Your task to perform on an android device: Clear the shopping cart on costco.com. Search for macbook pro on costco.com, select the first entry, and add it to the cart. Image 0: 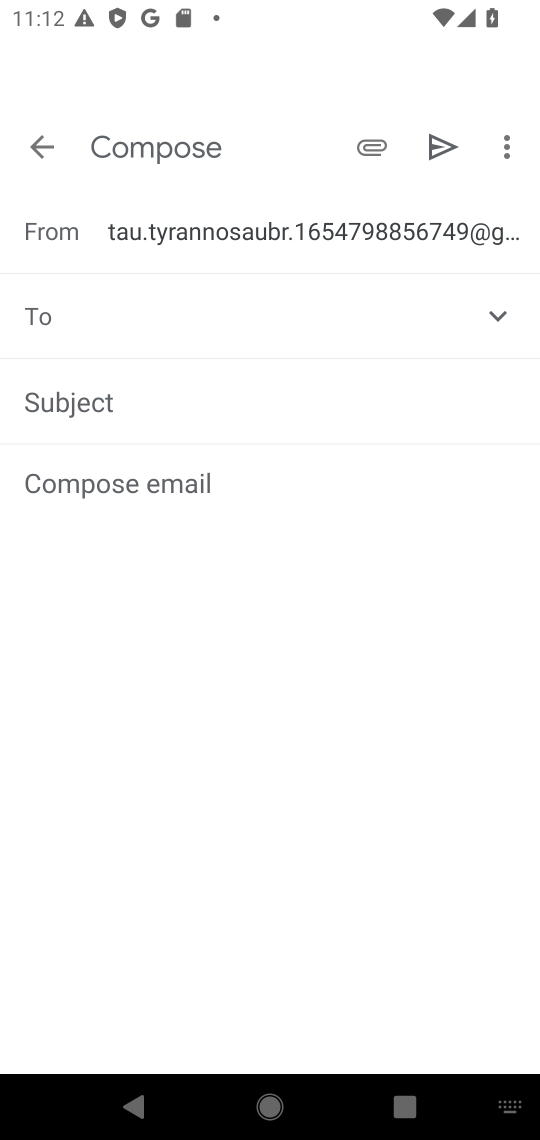
Step 0: press home button
Your task to perform on an android device: Clear the shopping cart on costco.com. Search for macbook pro on costco.com, select the first entry, and add it to the cart. Image 1: 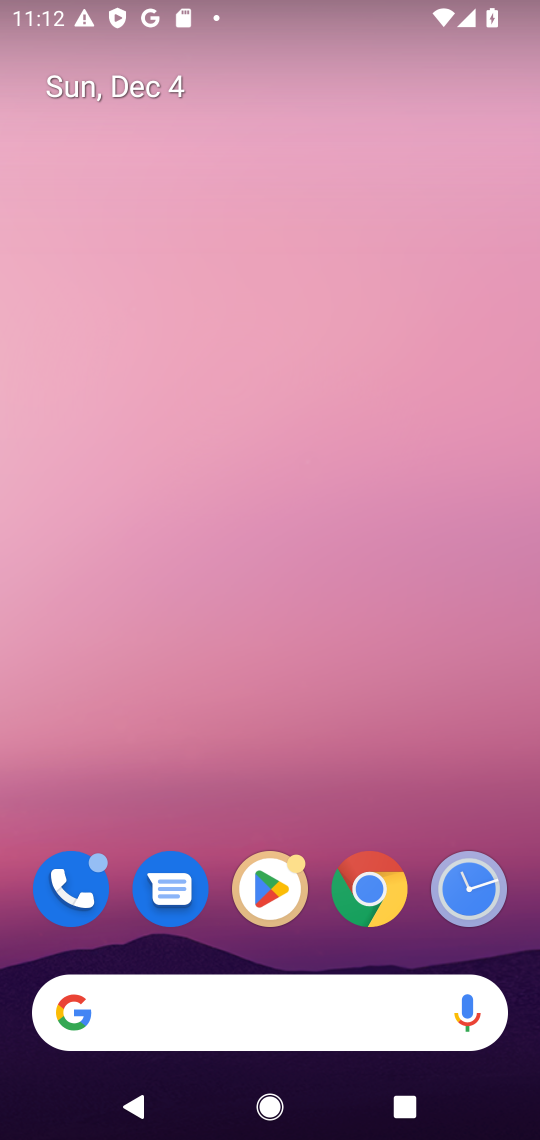
Step 1: click (373, 888)
Your task to perform on an android device: Clear the shopping cart on costco.com. Search for macbook pro on costco.com, select the first entry, and add it to the cart. Image 2: 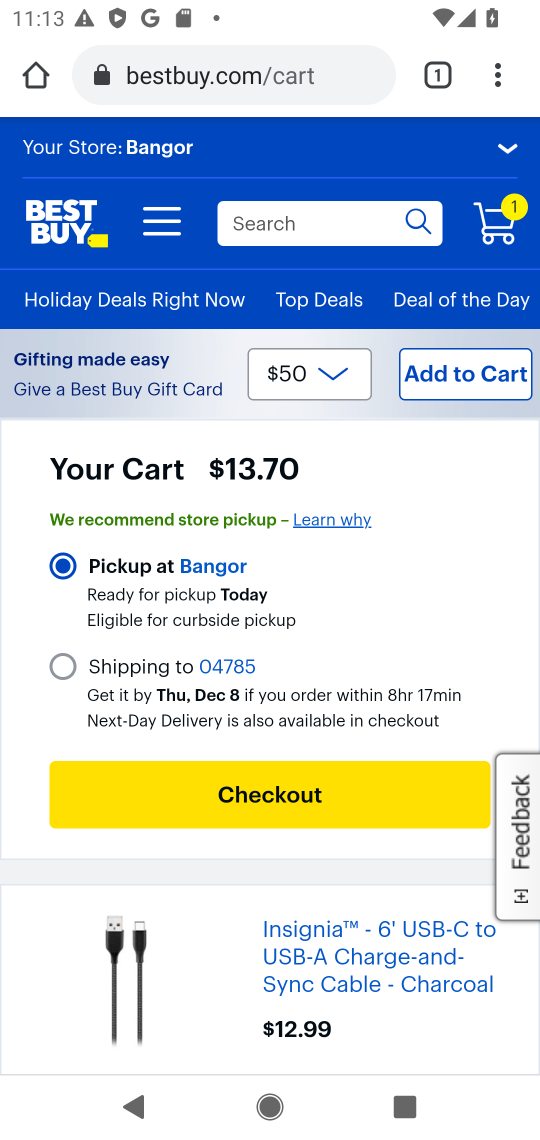
Step 2: click (291, 66)
Your task to perform on an android device: Clear the shopping cart on costco.com. Search for macbook pro on costco.com, select the first entry, and add it to the cart. Image 3: 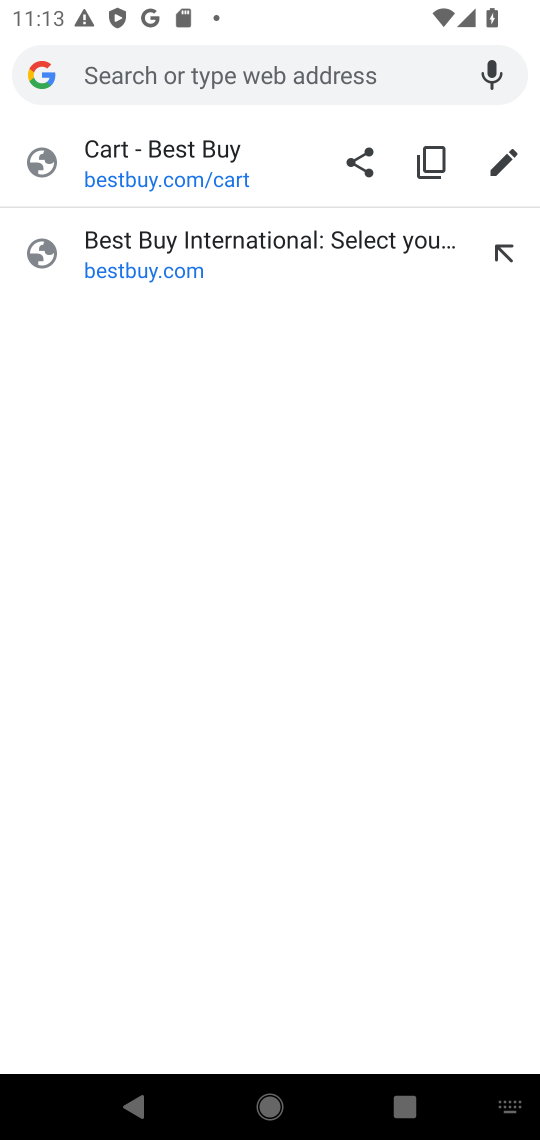
Step 3: press enter
Your task to perform on an android device: Clear the shopping cart on costco.com. Search for macbook pro on costco.com, select the first entry, and add it to the cart. Image 4: 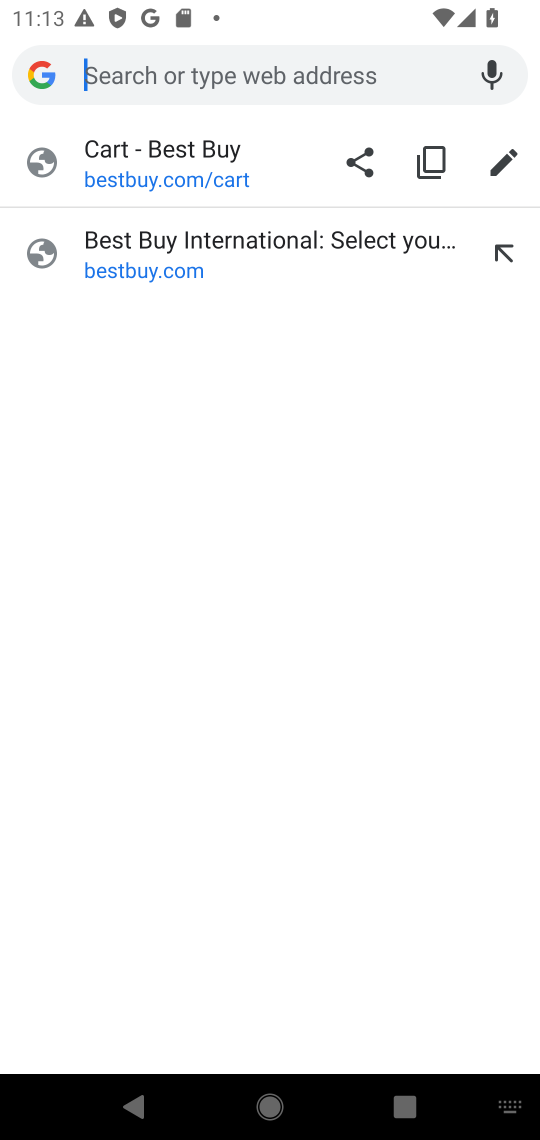
Step 4: type " costco.com"
Your task to perform on an android device: Clear the shopping cart on costco.com. Search for macbook pro on costco.com, select the first entry, and add it to the cart. Image 5: 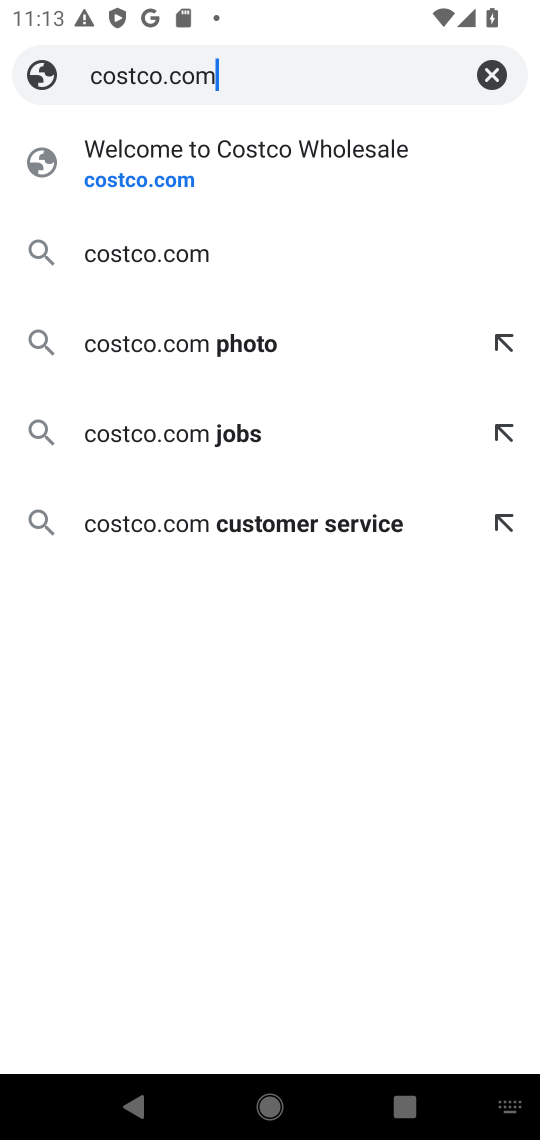
Step 5: click (156, 244)
Your task to perform on an android device: Clear the shopping cart on costco.com. Search for macbook pro on costco.com, select the first entry, and add it to the cart. Image 6: 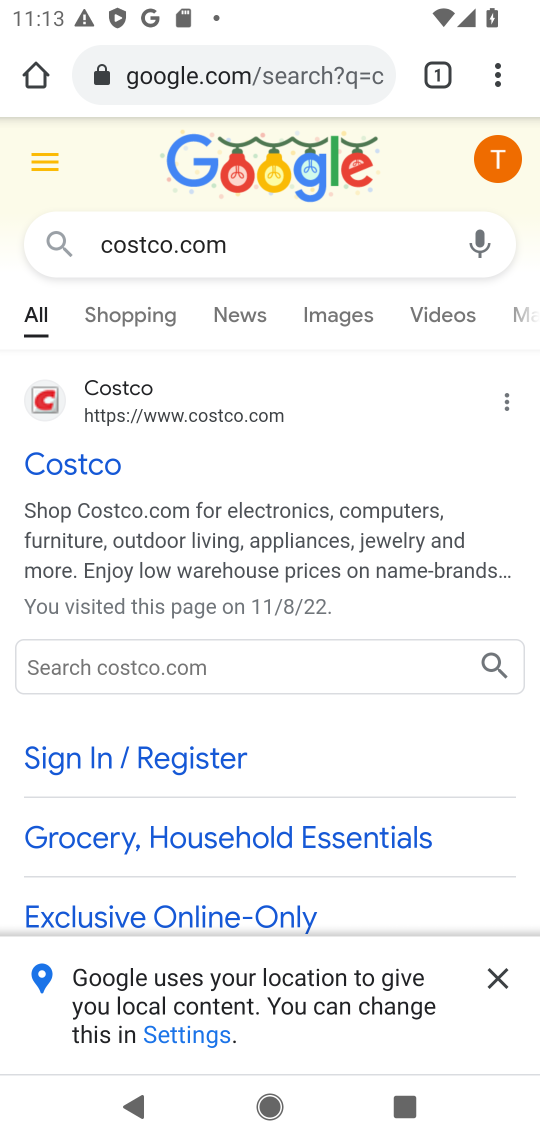
Step 6: click (199, 414)
Your task to perform on an android device: Clear the shopping cart on costco.com. Search for macbook pro on costco.com, select the first entry, and add it to the cart. Image 7: 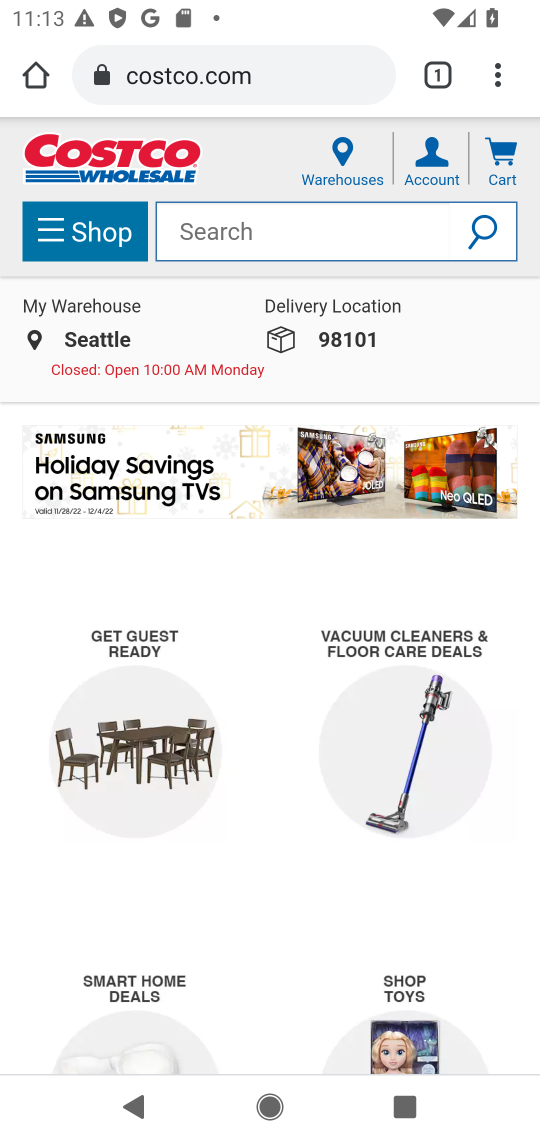
Step 7: click (377, 227)
Your task to perform on an android device: Clear the shopping cart on costco.com. Search for macbook pro on costco.com, select the first entry, and add it to the cart. Image 8: 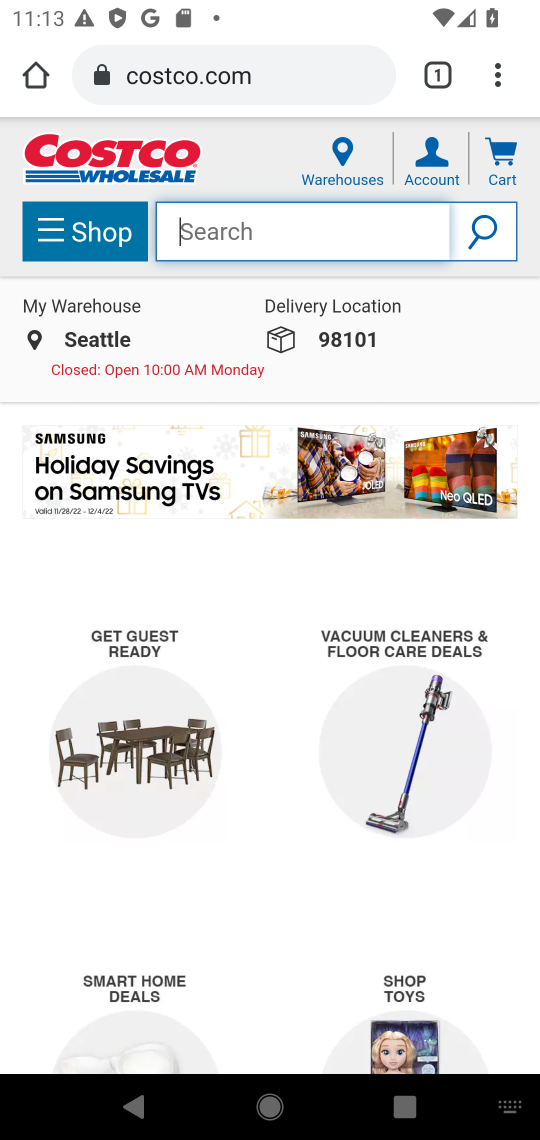
Step 8: type "macbook pro"
Your task to perform on an android device: Clear the shopping cart on costco.com. Search for macbook pro on costco.com, select the first entry, and add it to the cart. Image 9: 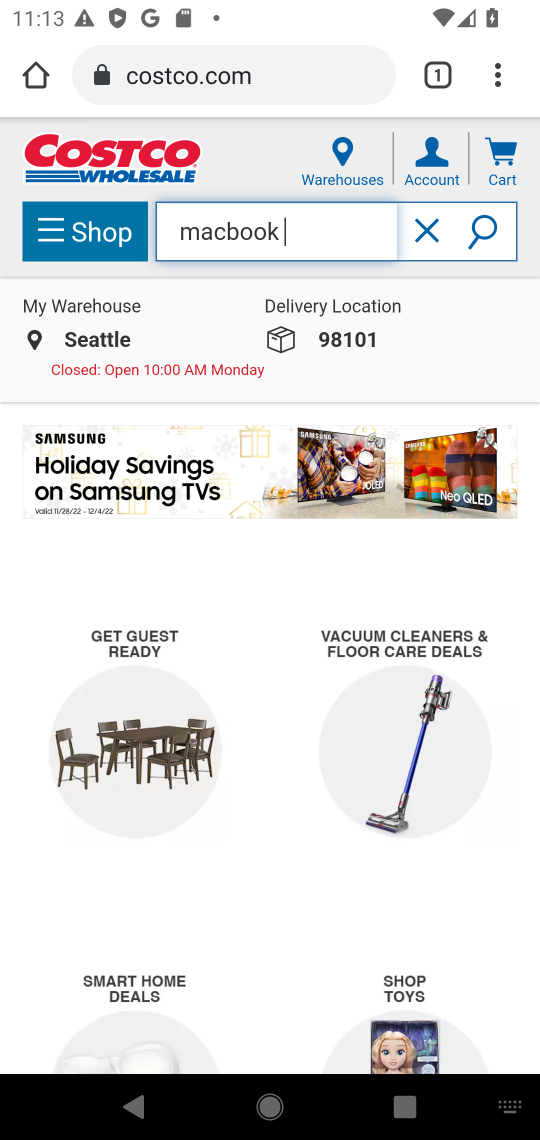
Step 9: press enter
Your task to perform on an android device: Clear the shopping cart on costco.com. Search for macbook pro on costco.com, select the first entry, and add it to the cart. Image 10: 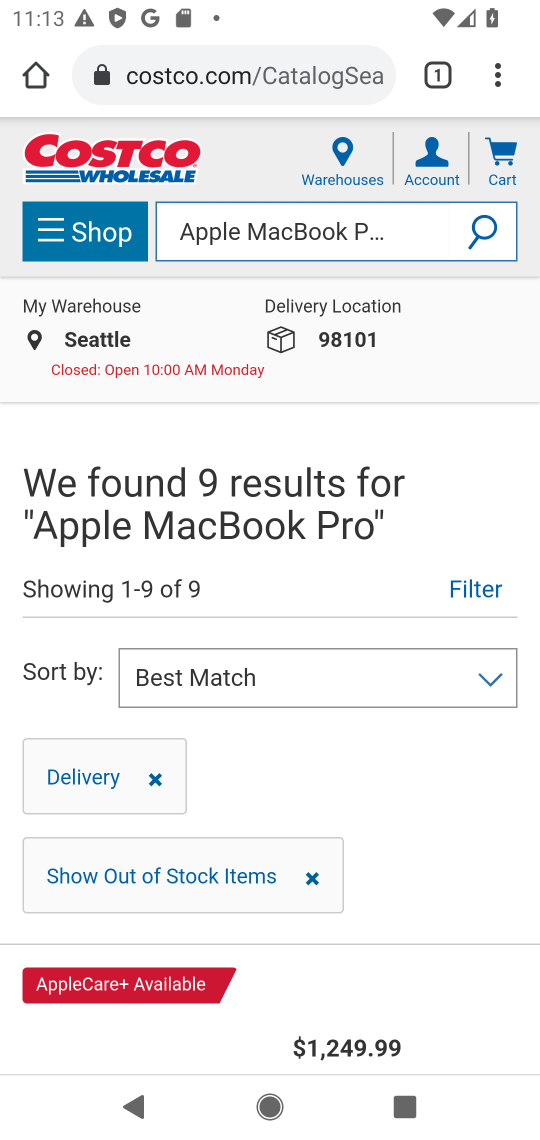
Step 10: drag from (470, 931) to (420, 509)
Your task to perform on an android device: Clear the shopping cart on costco.com. Search for macbook pro on costco.com, select the first entry, and add it to the cart. Image 11: 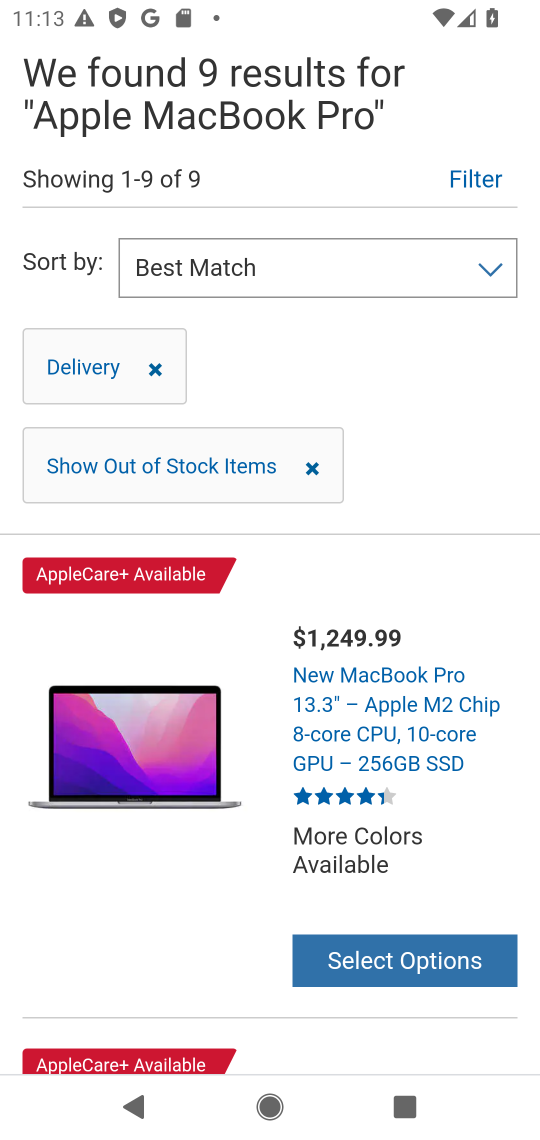
Step 11: click (176, 748)
Your task to perform on an android device: Clear the shopping cart on costco.com. Search for macbook pro on costco.com, select the first entry, and add it to the cart. Image 12: 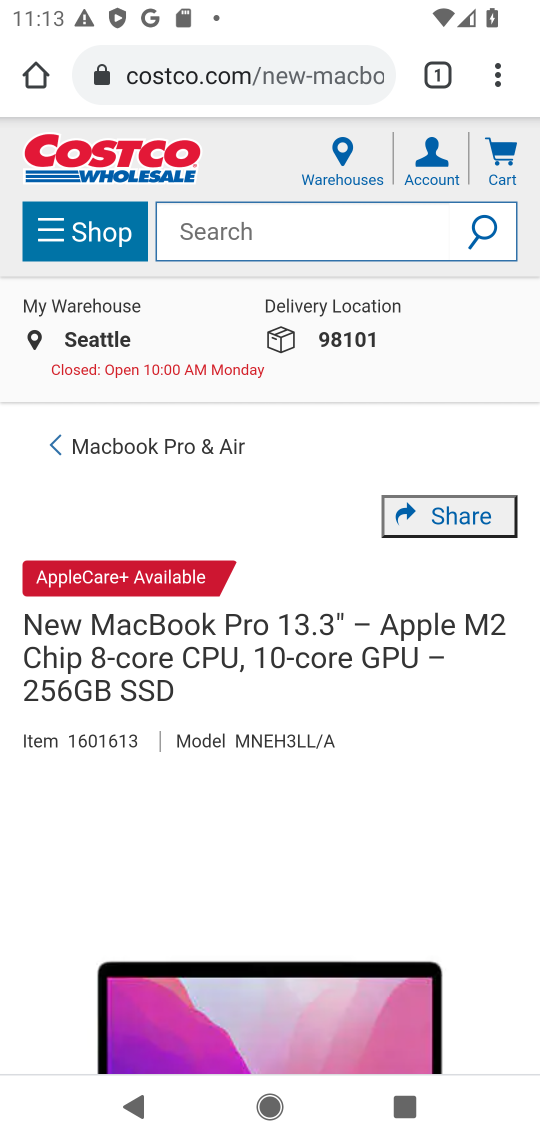
Step 12: drag from (479, 835) to (378, 337)
Your task to perform on an android device: Clear the shopping cart on costco.com. Search for macbook pro on costco.com, select the first entry, and add it to the cart. Image 13: 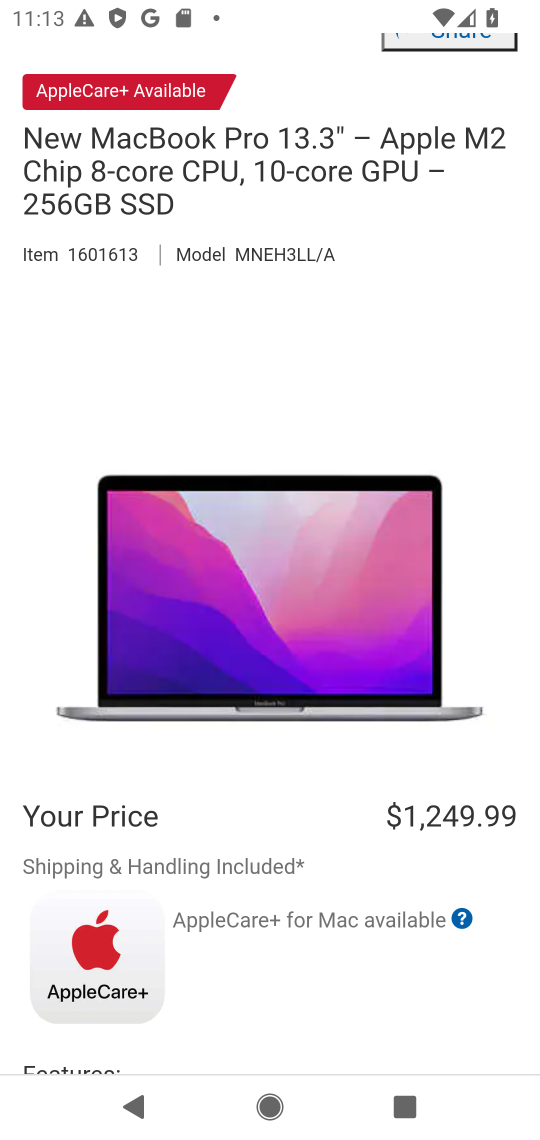
Step 13: drag from (404, 926) to (353, 350)
Your task to perform on an android device: Clear the shopping cart on costco.com. Search for macbook pro on costco.com, select the first entry, and add it to the cart. Image 14: 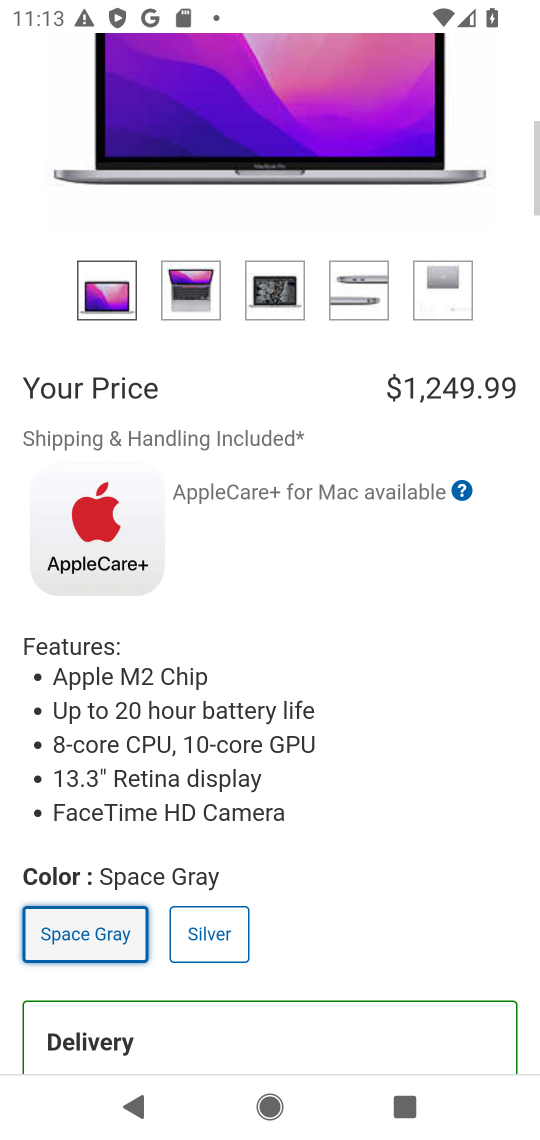
Step 14: drag from (418, 836) to (345, 314)
Your task to perform on an android device: Clear the shopping cart on costco.com. Search for macbook pro on costco.com, select the first entry, and add it to the cart. Image 15: 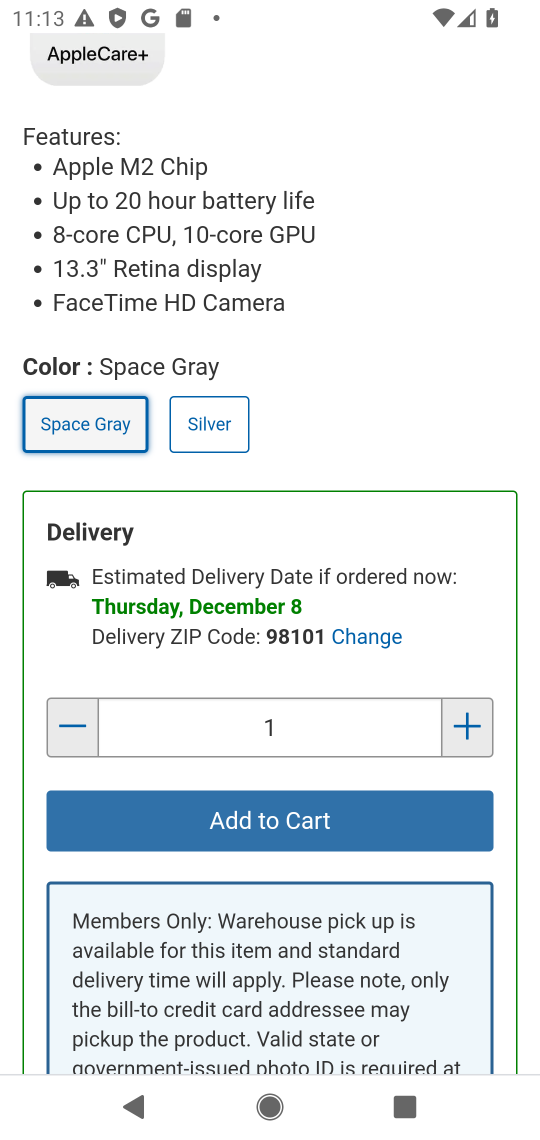
Step 15: click (254, 824)
Your task to perform on an android device: Clear the shopping cart on costco.com. Search for macbook pro on costco.com, select the first entry, and add it to the cart. Image 16: 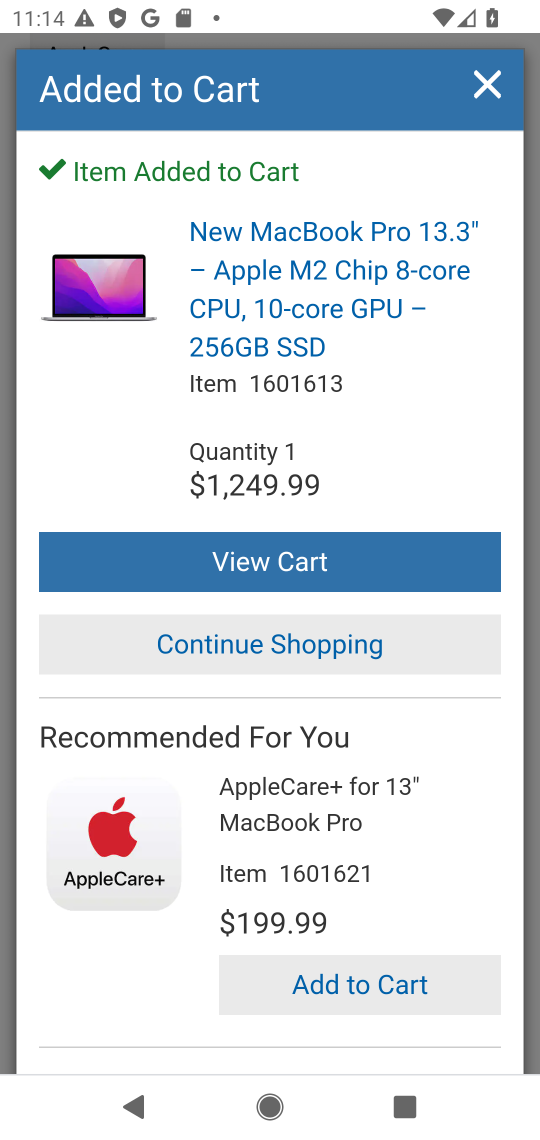
Step 16: click (265, 567)
Your task to perform on an android device: Clear the shopping cart on costco.com. Search for macbook pro on costco.com, select the first entry, and add it to the cart. Image 17: 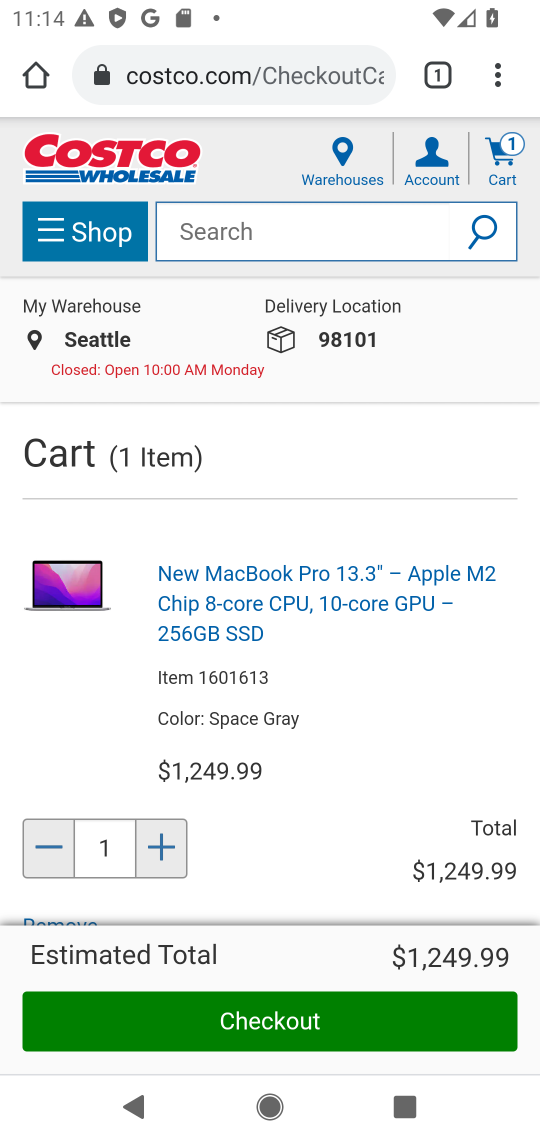
Step 17: task complete